Your task to perform on an android device: Look up the top rated headphones on Amazon. Image 0: 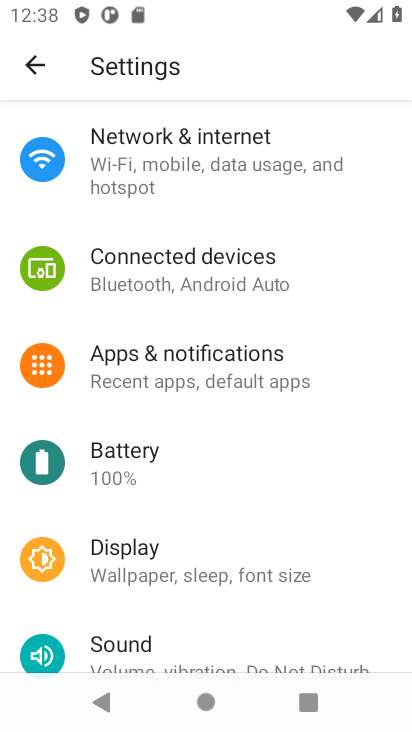
Step 0: press home button
Your task to perform on an android device: Look up the top rated headphones on Amazon. Image 1: 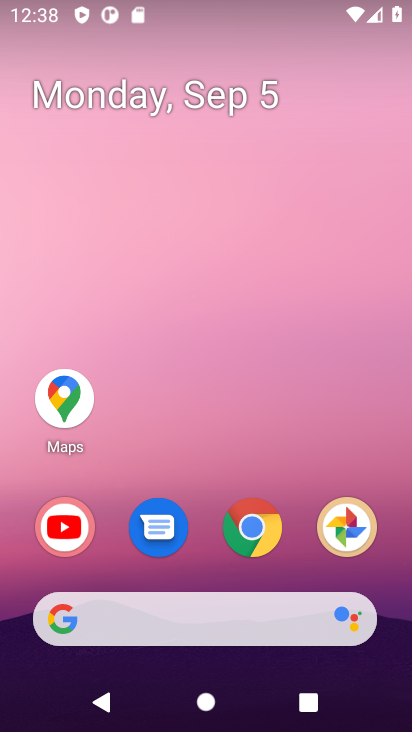
Step 1: click (244, 540)
Your task to perform on an android device: Look up the top rated headphones on Amazon. Image 2: 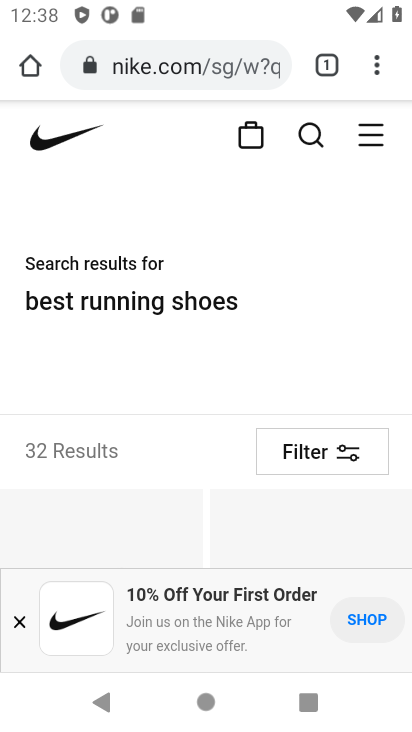
Step 2: click (156, 74)
Your task to perform on an android device: Look up the top rated headphones on Amazon. Image 3: 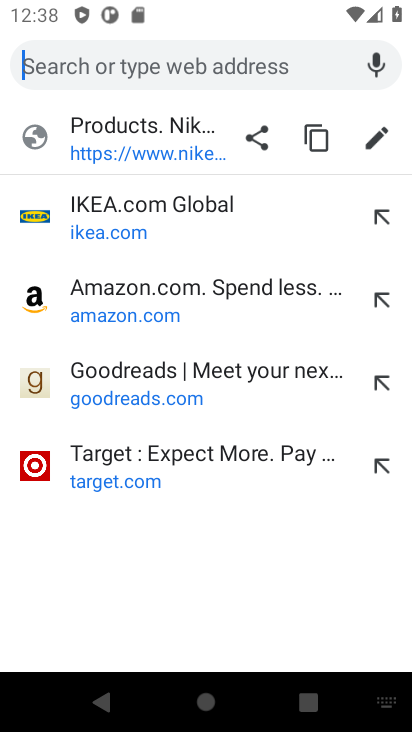
Step 3: type "Amazon"
Your task to perform on an android device: Look up the top rated headphones on Amazon. Image 4: 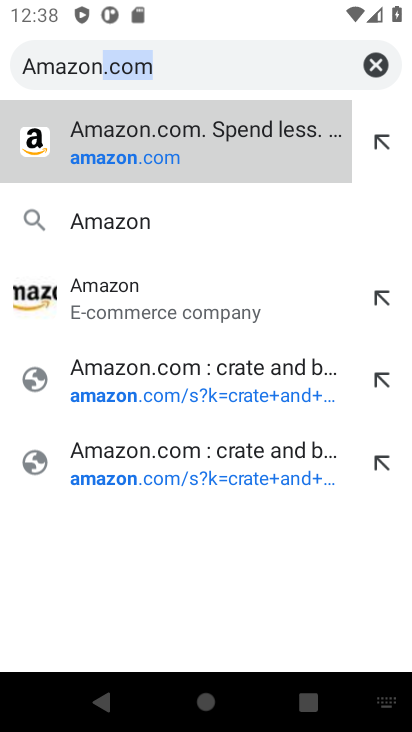
Step 4: click (137, 131)
Your task to perform on an android device: Look up the top rated headphones on Amazon. Image 5: 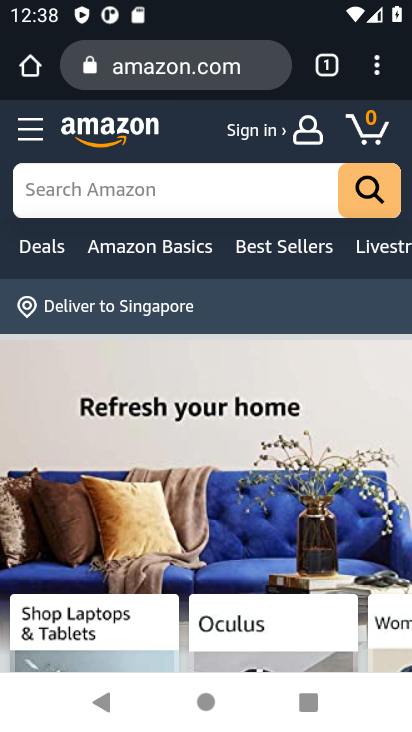
Step 5: click (172, 195)
Your task to perform on an android device: Look up the top rated headphones on Amazon. Image 6: 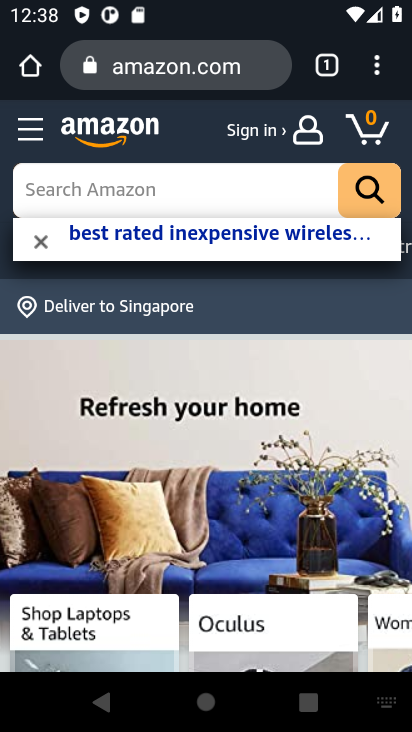
Step 6: type "the top rated headphones"
Your task to perform on an android device: Look up the top rated headphones on Amazon. Image 7: 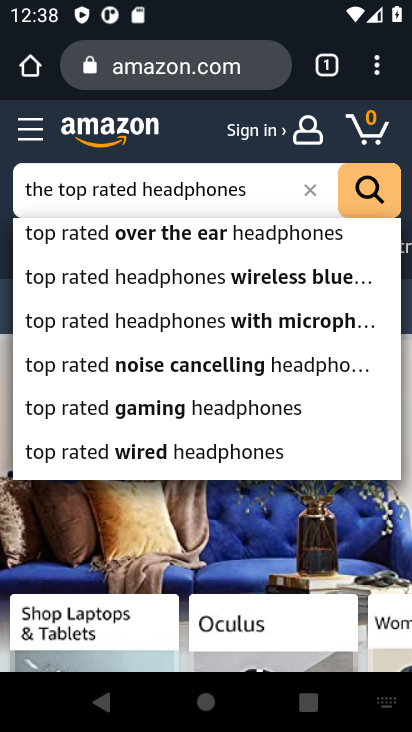
Step 7: click (376, 191)
Your task to perform on an android device: Look up the top rated headphones on Amazon. Image 8: 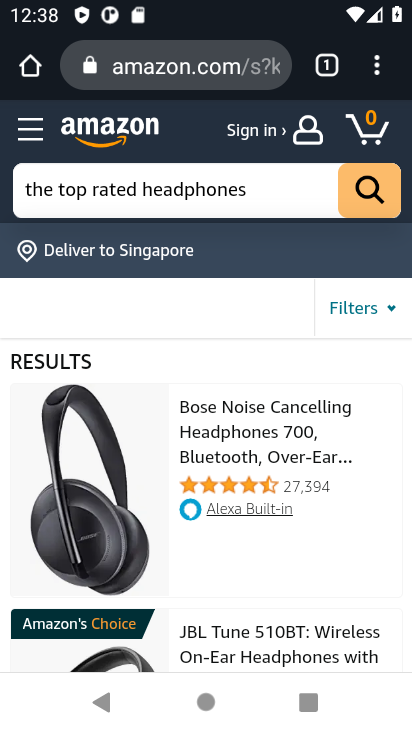
Step 8: task complete